Your task to perform on an android device: Go to ESPN.com Image 0: 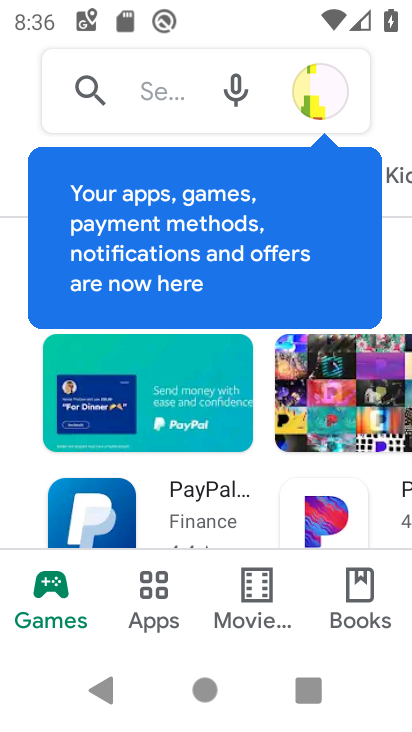
Step 0: press home button
Your task to perform on an android device: Go to ESPN.com Image 1: 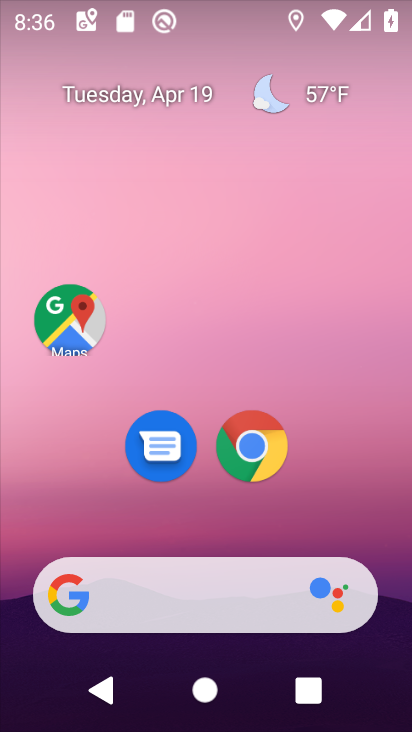
Step 1: click (245, 461)
Your task to perform on an android device: Go to ESPN.com Image 2: 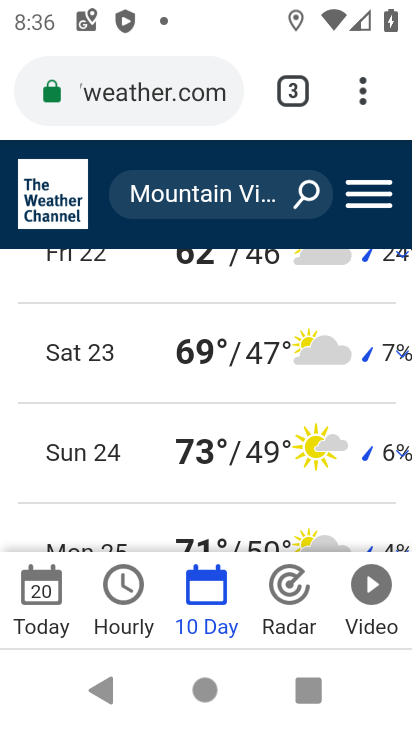
Step 2: click (295, 89)
Your task to perform on an android device: Go to ESPN.com Image 3: 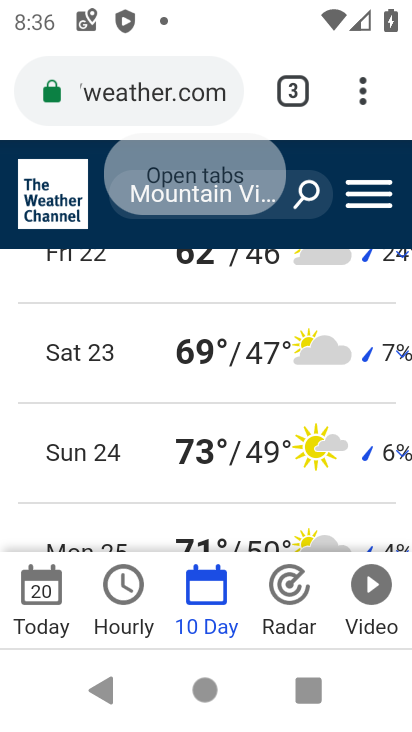
Step 3: click (295, 94)
Your task to perform on an android device: Go to ESPN.com Image 4: 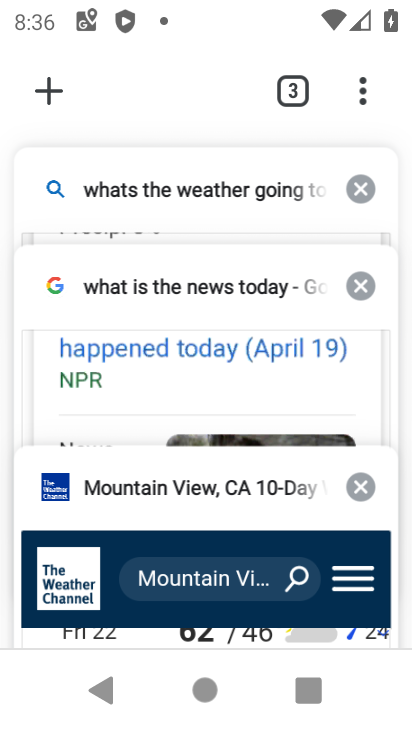
Step 4: click (40, 87)
Your task to perform on an android device: Go to ESPN.com Image 5: 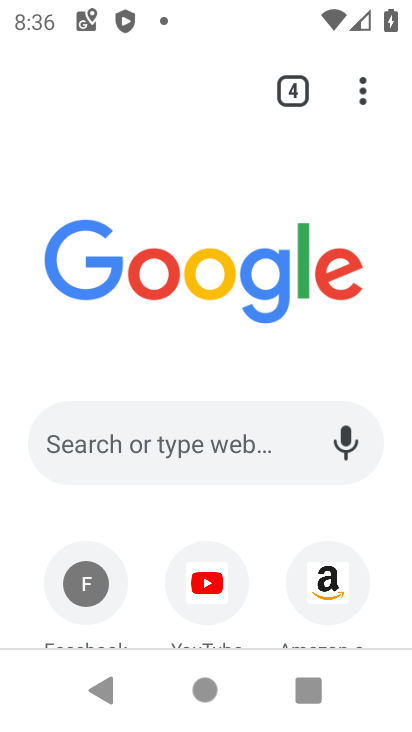
Step 5: drag from (184, 513) to (183, 237)
Your task to perform on an android device: Go to ESPN.com Image 6: 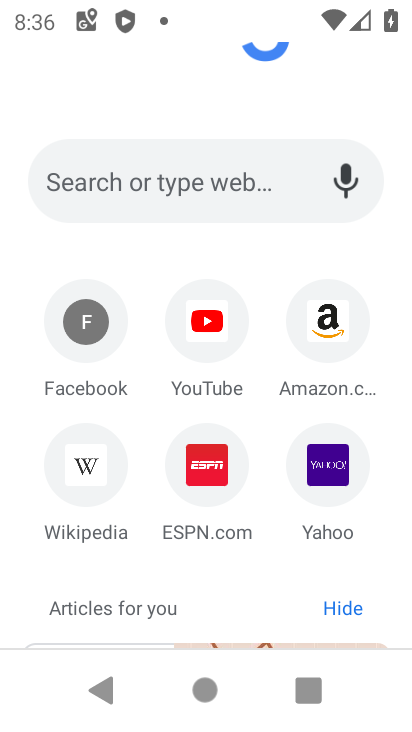
Step 6: click (219, 463)
Your task to perform on an android device: Go to ESPN.com Image 7: 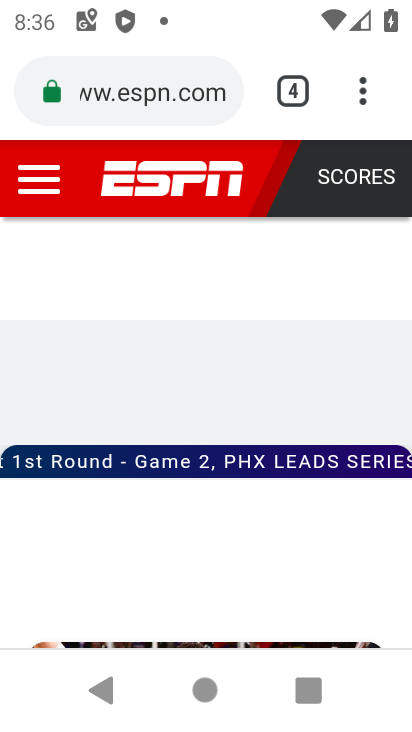
Step 7: task complete